Your task to perform on an android device: What's the weather today? Image 0: 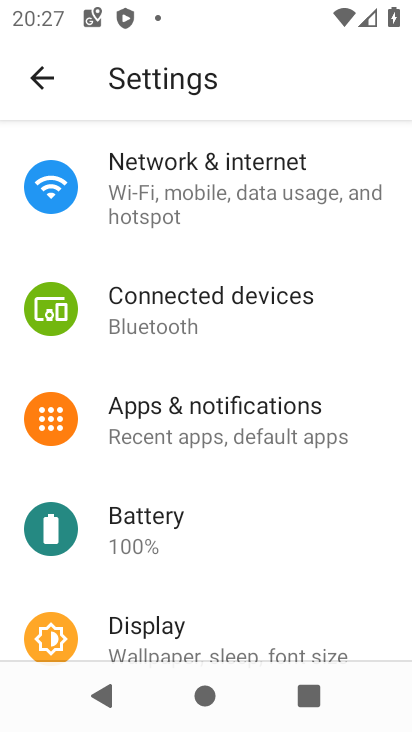
Step 0: press home button
Your task to perform on an android device: What's the weather today? Image 1: 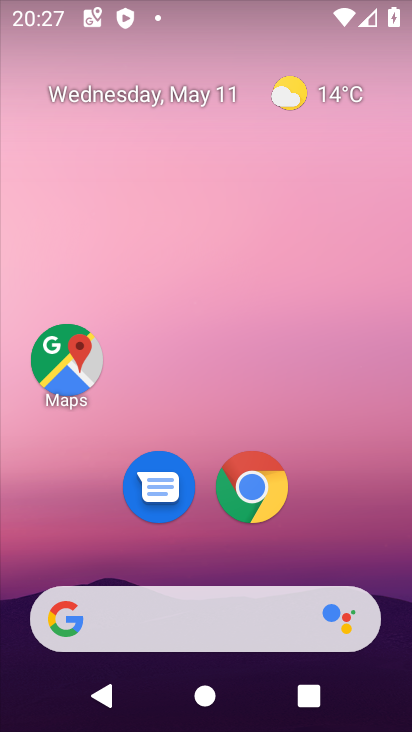
Step 1: drag from (177, 585) to (245, 291)
Your task to perform on an android device: What's the weather today? Image 2: 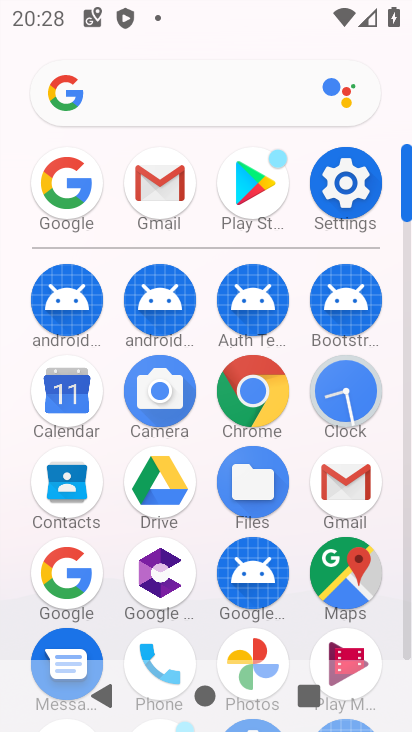
Step 2: click (74, 571)
Your task to perform on an android device: What's the weather today? Image 3: 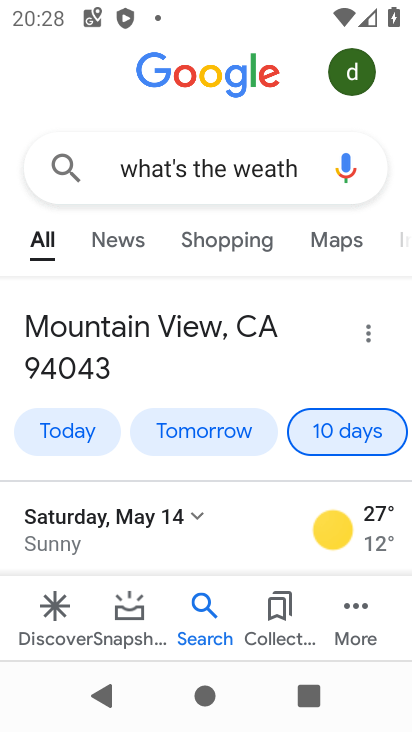
Step 3: click (53, 434)
Your task to perform on an android device: What's the weather today? Image 4: 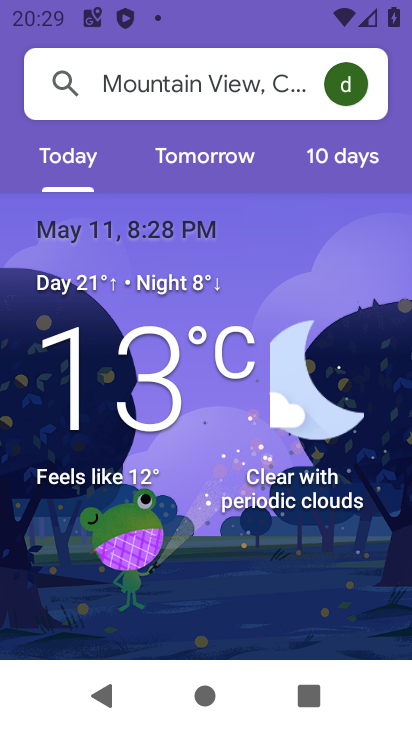
Step 4: task complete